Your task to perform on an android device: Search for vegetarian restaurants on Maps Image 0: 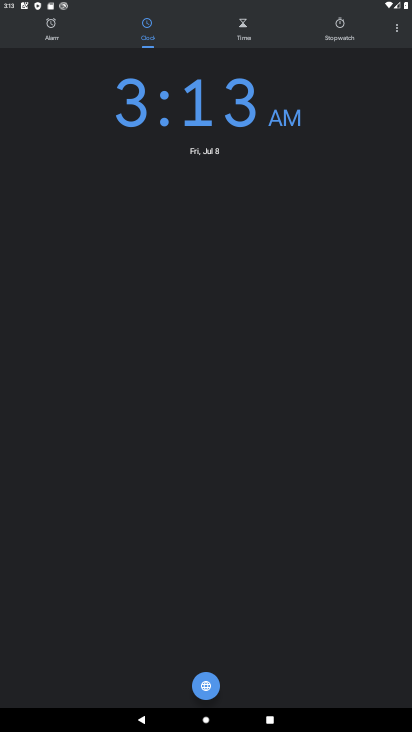
Step 0: press home button
Your task to perform on an android device: Search for vegetarian restaurants on Maps Image 1: 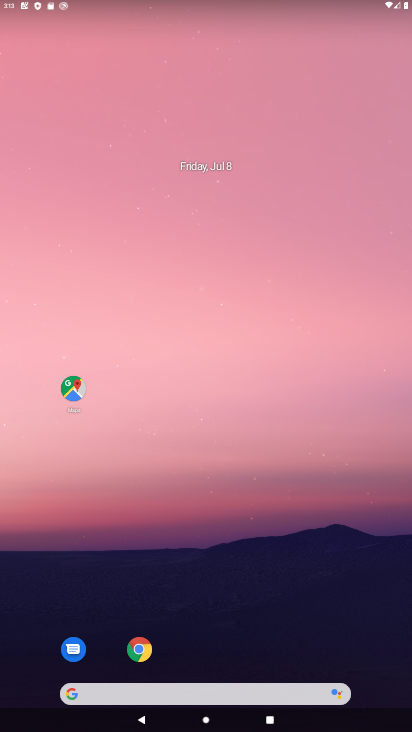
Step 1: click (69, 391)
Your task to perform on an android device: Search for vegetarian restaurants on Maps Image 2: 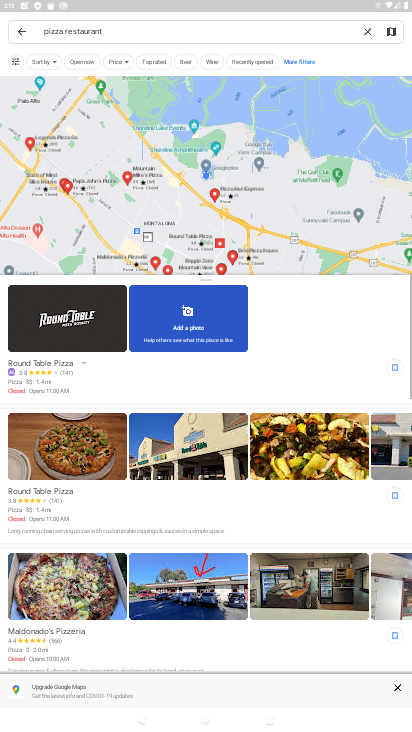
Step 2: click (363, 30)
Your task to perform on an android device: Search for vegetarian restaurants on Maps Image 3: 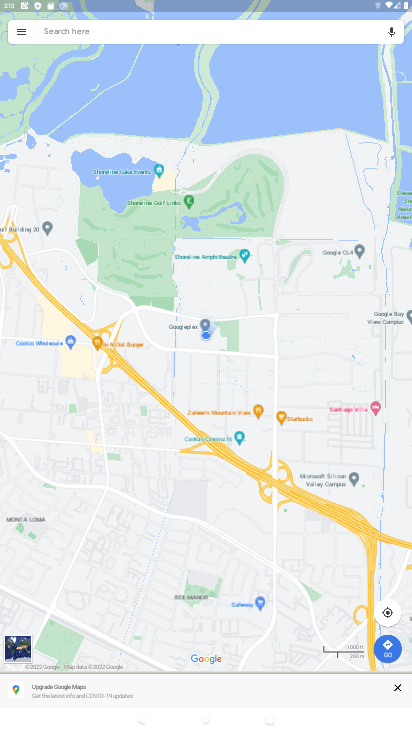
Step 3: click (335, 31)
Your task to perform on an android device: Search for vegetarian restaurants on Maps Image 4: 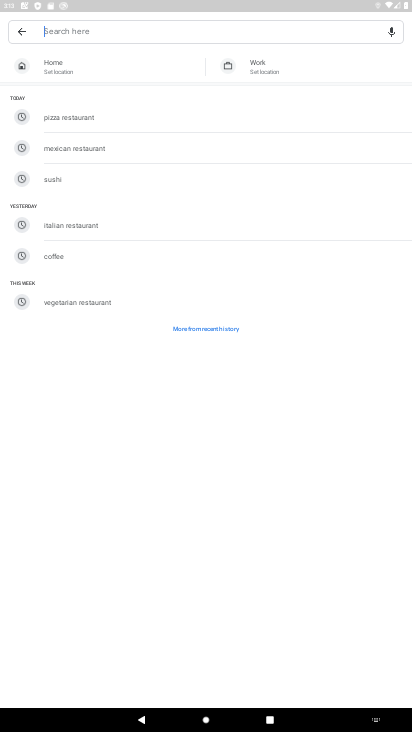
Step 4: click (101, 301)
Your task to perform on an android device: Search for vegetarian restaurants on Maps Image 5: 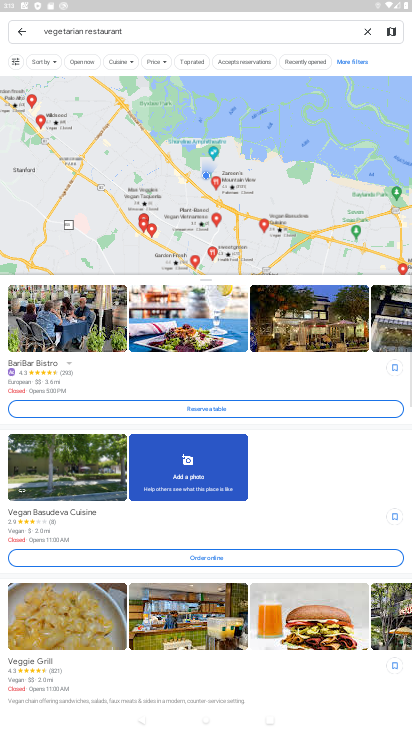
Step 5: task complete